Your task to perform on an android device: Do I have any events today? Image 0: 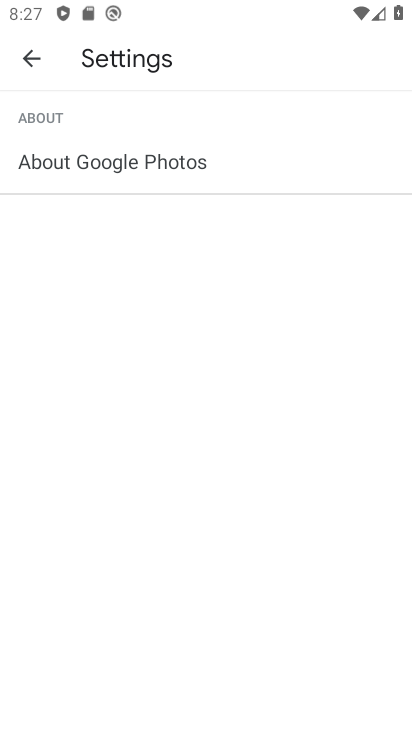
Step 0: press home button
Your task to perform on an android device: Do I have any events today? Image 1: 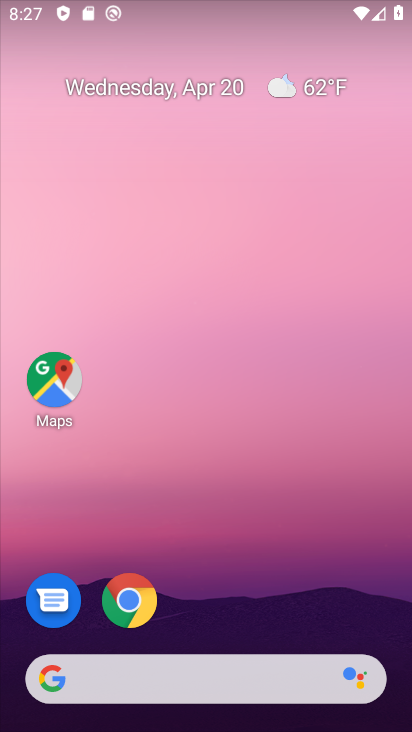
Step 1: drag from (196, 659) to (197, 188)
Your task to perform on an android device: Do I have any events today? Image 2: 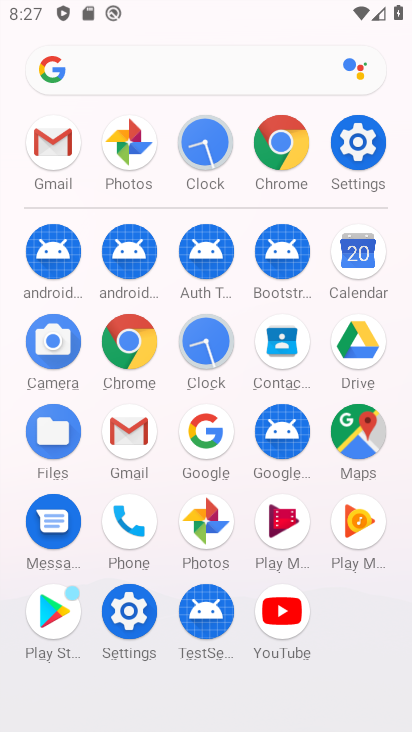
Step 2: click (363, 246)
Your task to perform on an android device: Do I have any events today? Image 3: 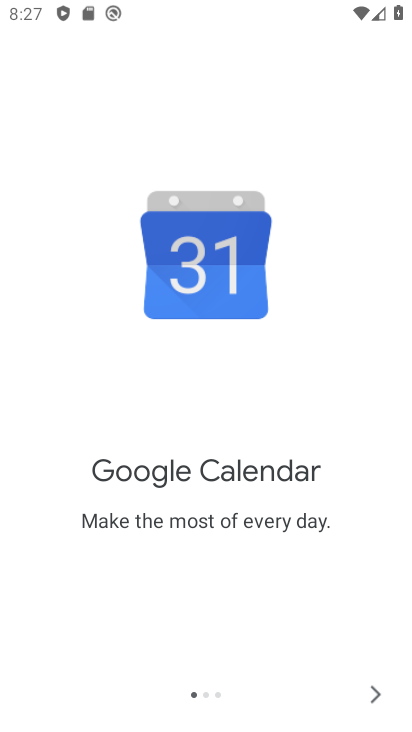
Step 3: click (372, 694)
Your task to perform on an android device: Do I have any events today? Image 4: 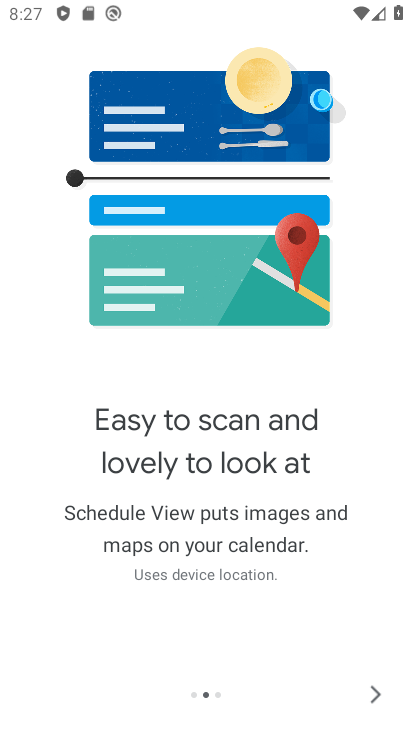
Step 4: click (372, 688)
Your task to perform on an android device: Do I have any events today? Image 5: 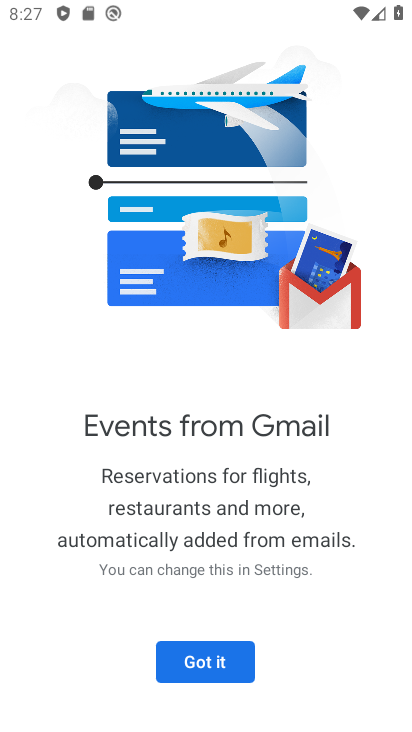
Step 5: click (201, 663)
Your task to perform on an android device: Do I have any events today? Image 6: 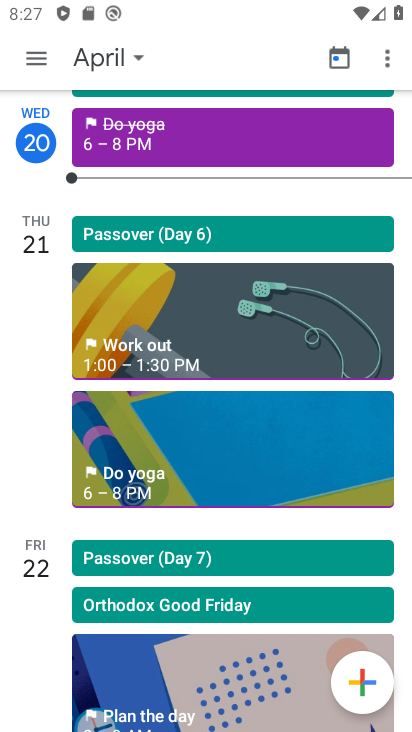
Step 6: click (86, 57)
Your task to perform on an android device: Do I have any events today? Image 7: 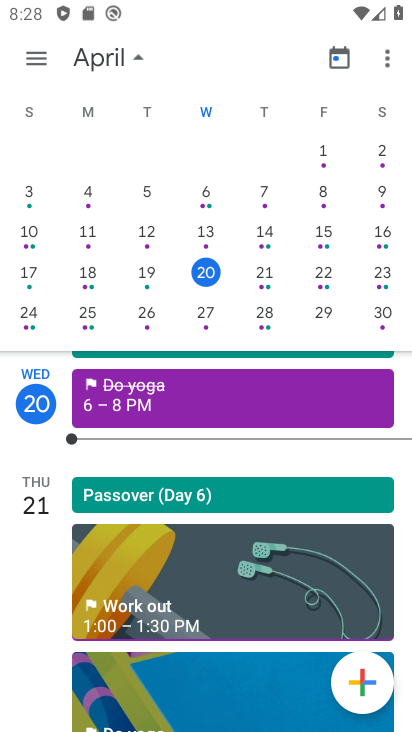
Step 7: click (209, 271)
Your task to perform on an android device: Do I have any events today? Image 8: 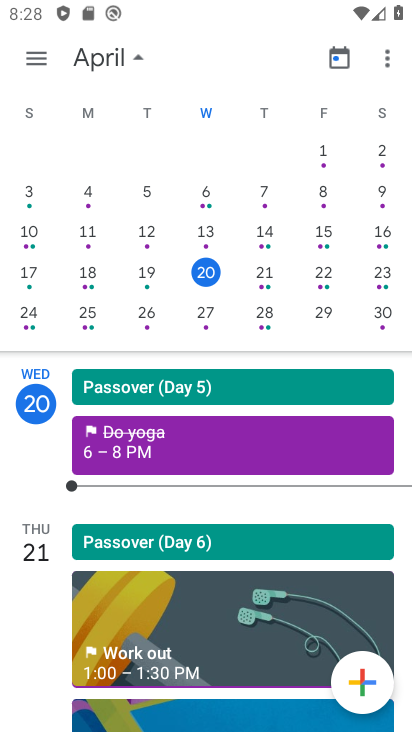
Step 8: click (38, 60)
Your task to perform on an android device: Do I have any events today? Image 9: 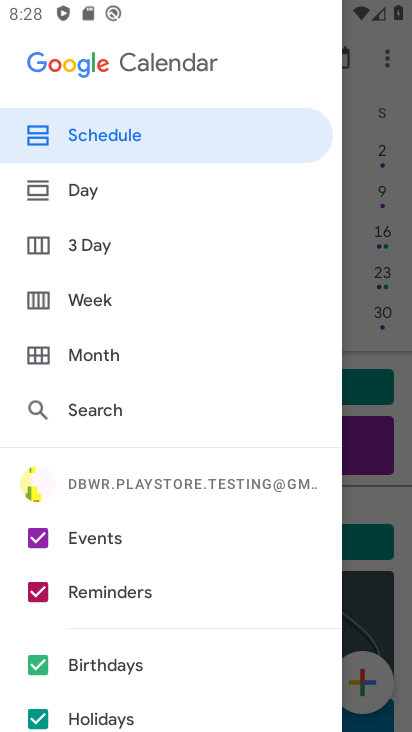
Step 9: click (43, 592)
Your task to perform on an android device: Do I have any events today? Image 10: 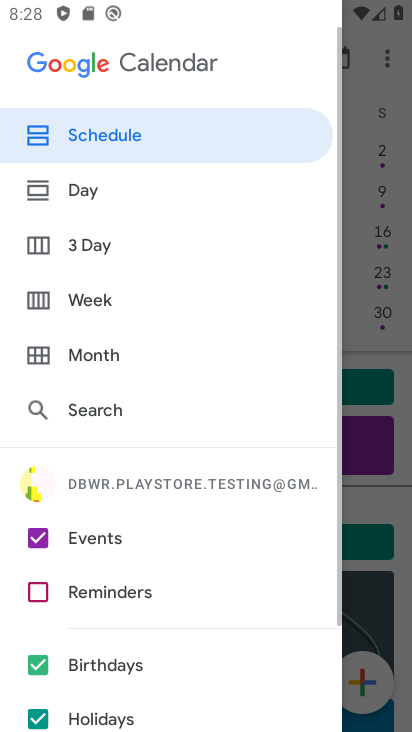
Step 10: click (36, 667)
Your task to perform on an android device: Do I have any events today? Image 11: 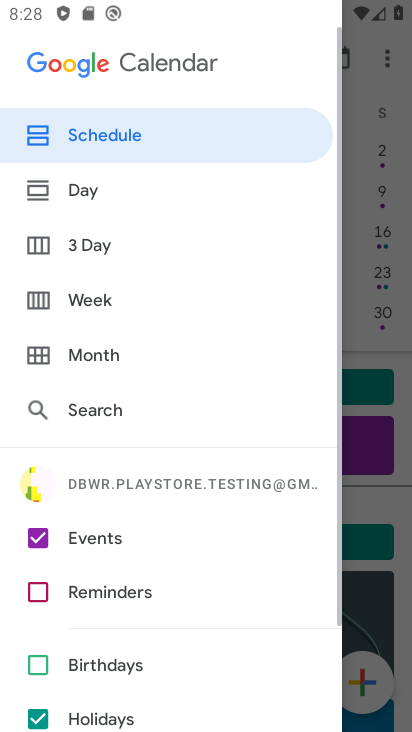
Step 11: click (34, 715)
Your task to perform on an android device: Do I have any events today? Image 12: 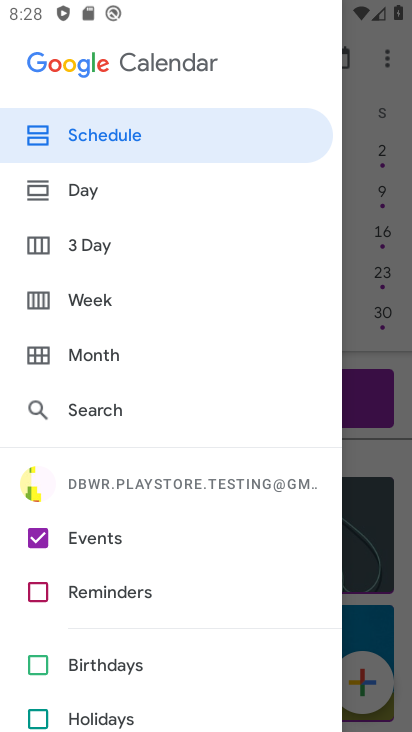
Step 12: click (359, 337)
Your task to perform on an android device: Do I have any events today? Image 13: 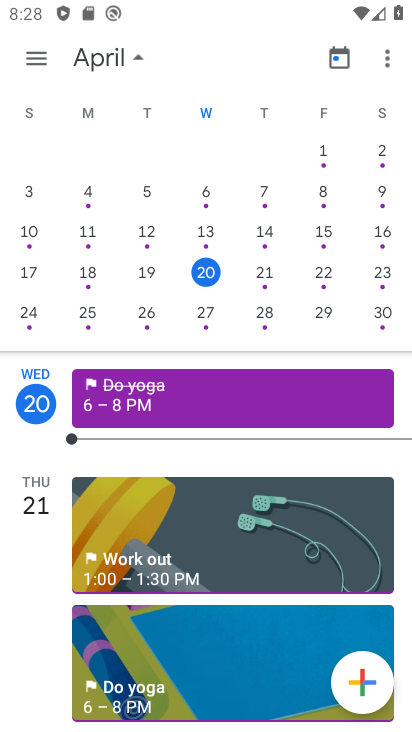
Step 13: task complete